Your task to perform on an android device: turn off javascript in the chrome app Image 0: 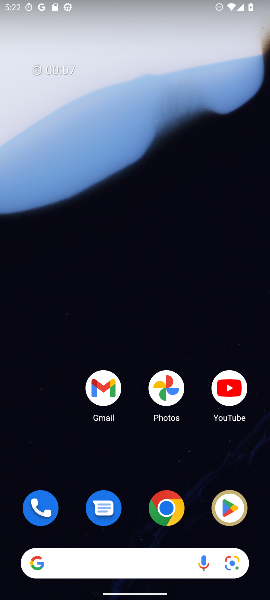
Step 0: click (164, 501)
Your task to perform on an android device: turn off javascript in the chrome app Image 1: 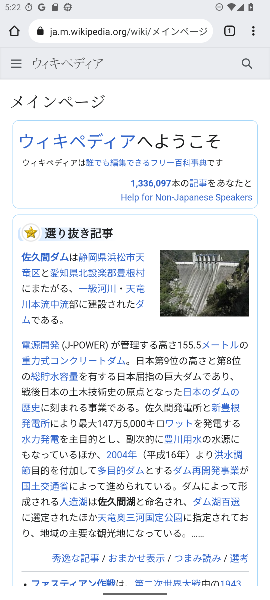
Step 1: drag from (253, 27) to (269, 364)
Your task to perform on an android device: turn off javascript in the chrome app Image 2: 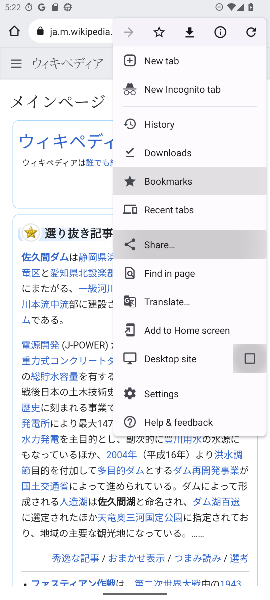
Step 2: drag from (243, 354) to (207, 209)
Your task to perform on an android device: turn off javascript in the chrome app Image 3: 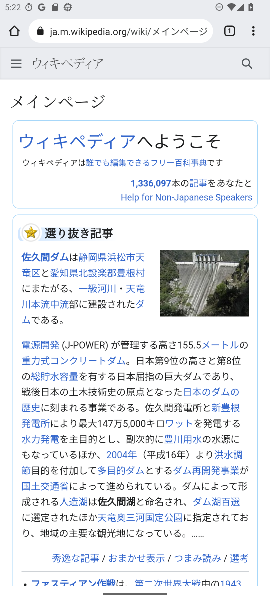
Step 3: drag from (252, 35) to (201, 387)
Your task to perform on an android device: turn off javascript in the chrome app Image 4: 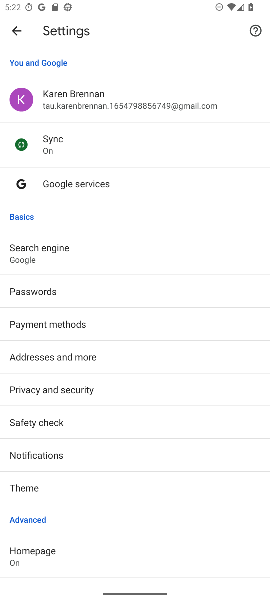
Step 4: drag from (191, 535) to (194, 244)
Your task to perform on an android device: turn off javascript in the chrome app Image 5: 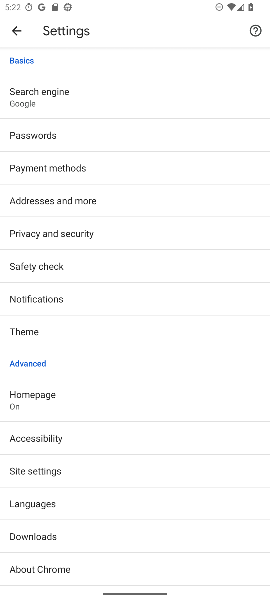
Step 5: click (63, 472)
Your task to perform on an android device: turn off javascript in the chrome app Image 6: 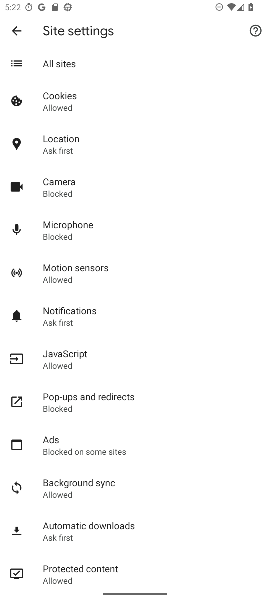
Step 6: click (100, 371)
Your task to perform on an android device: turn off javascript in the chrome app Image 7: 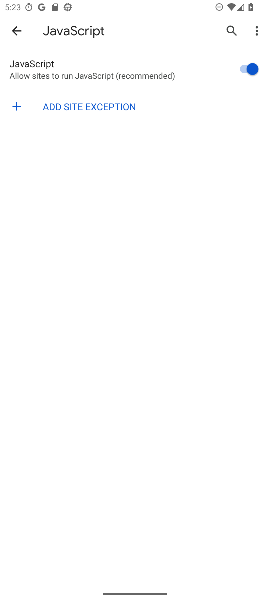
Step 7: drag from (234, 514) to (172, 99)
Your task to perform on an android device: turn off javascript in the chrome app Image 8: 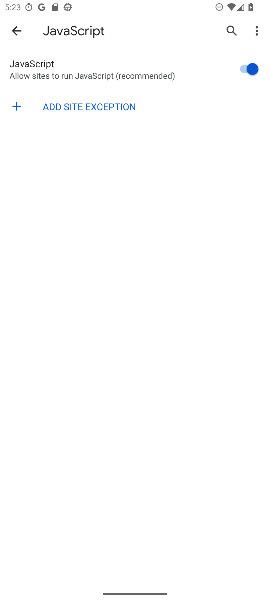
Step 8: click (245, 59)
Your task to perform on an android device: turn off javascript in the chrome app Image 9: 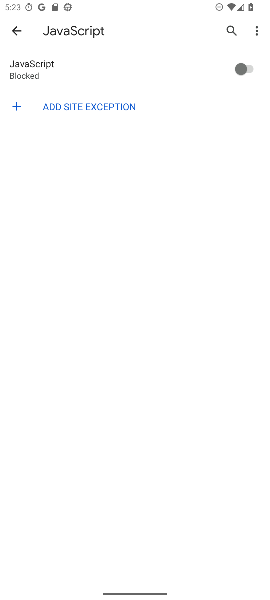
Step 9: task complete